Your task to perform on an android device: turn on improve location accuracy Image 0: 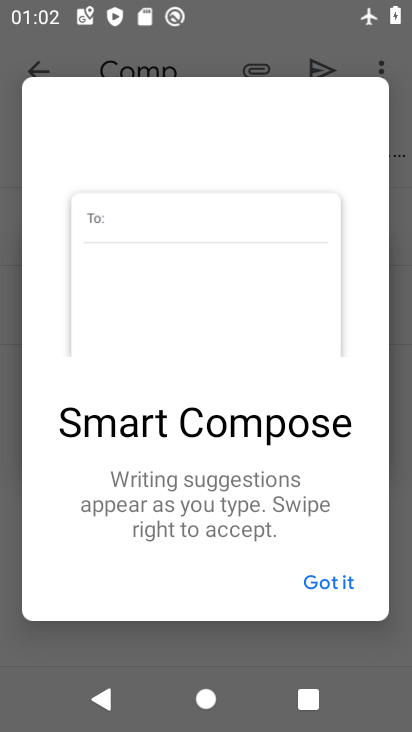
Step 0: press home button
Your task to perform on an android device: turn on improve location accuracy Image 1: 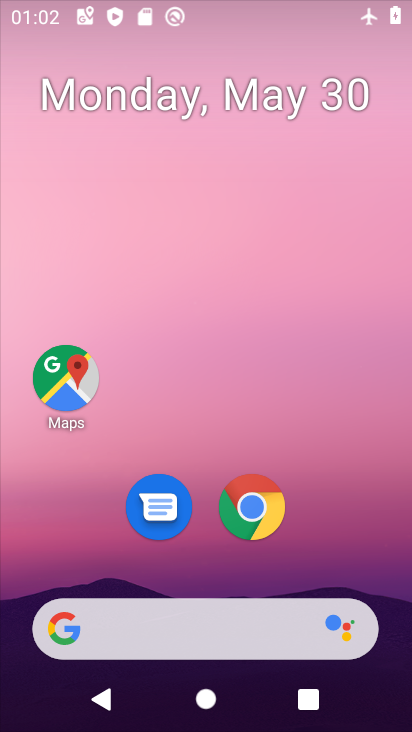
Step 1: drag from (262, 586) to (224, 186)
Your task to perform on an android device: turn on improve location accuracy Image 2: 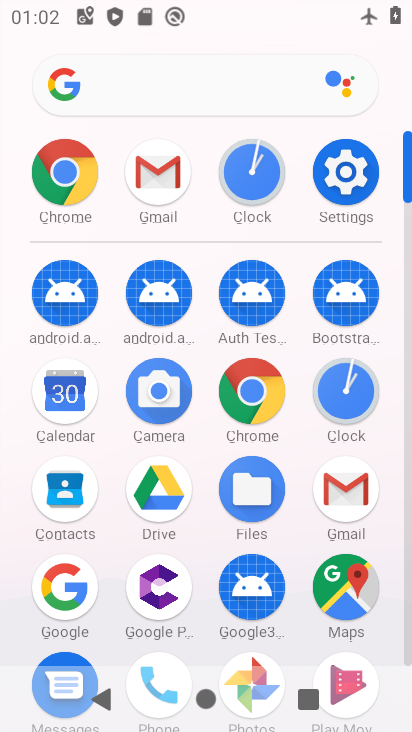
Step 2: click (334, 166)
Your task to perform on an android device: turn on improve location accuracy Image 3: 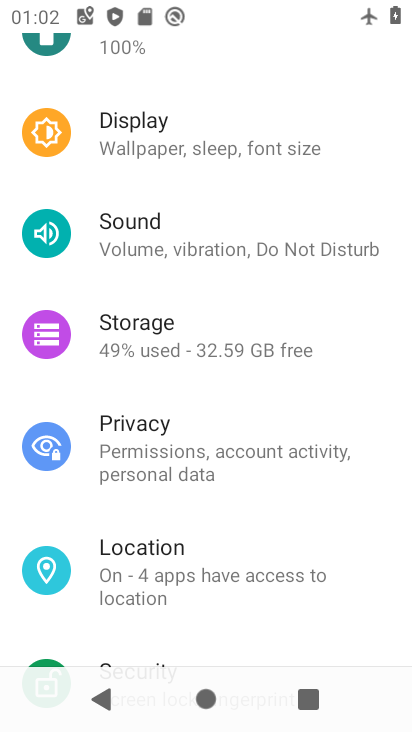
Step 3: drag from (173, 565) to (184, 364)
Your task to perform on an android device: turn on improve location accuracy Image 4: 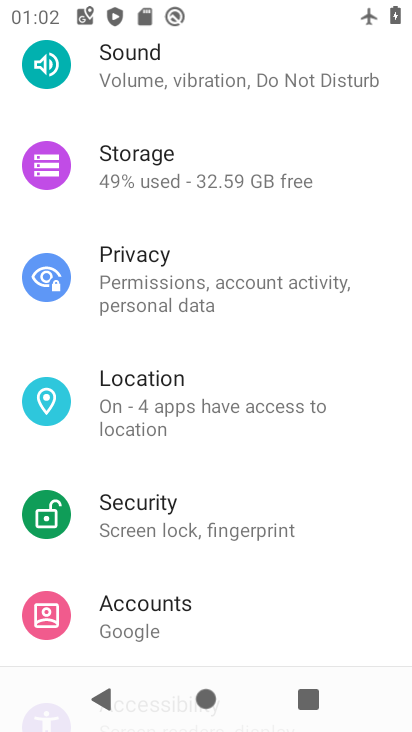
Step 4: click (152, 406)
Your task to perform on an android device: turn on improve location accuracy Image 5: 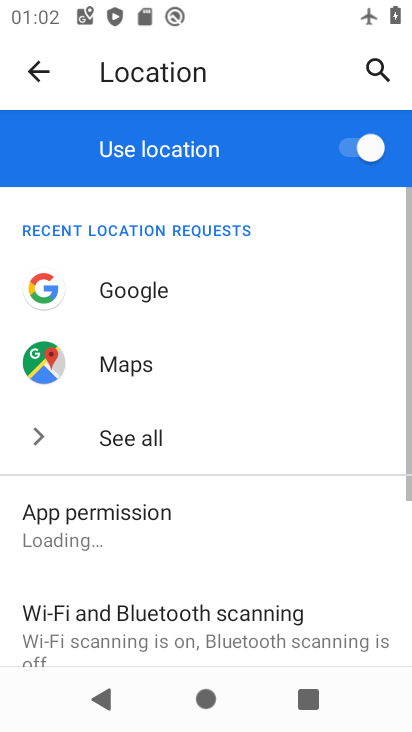
Step 5: drag from (153, 604) to (204, 246)
Your task to perform on an android device: turn on improve location accuracy Image 6: 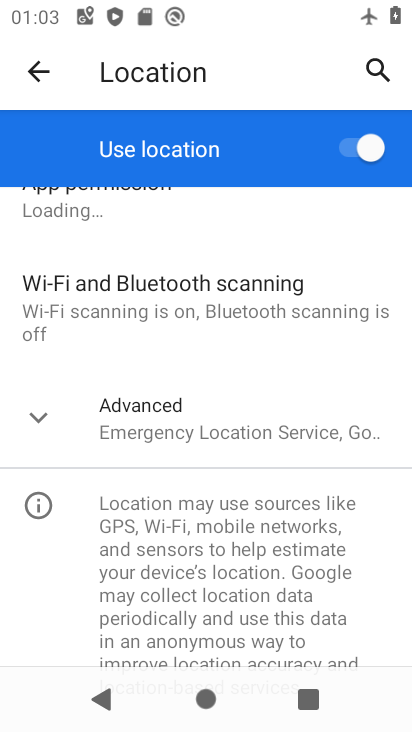
Step 6: click (156, 404)
Your task to perform on an android device: turn on improve location accuracy Image 7: 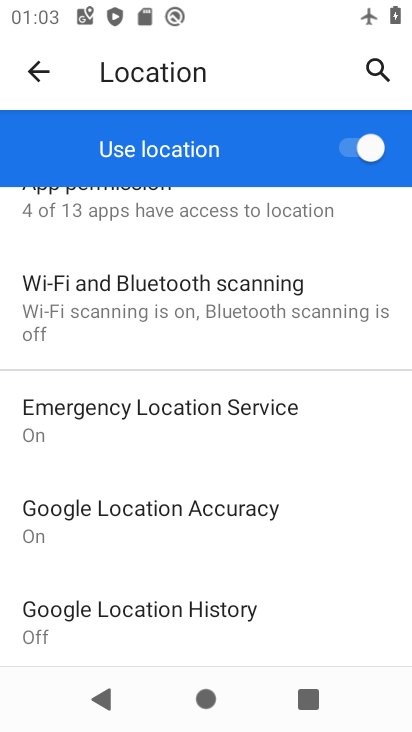
Step 7: click (157, 515)
Your task to perform on an android device: turn on improve location accuracy Image 8: 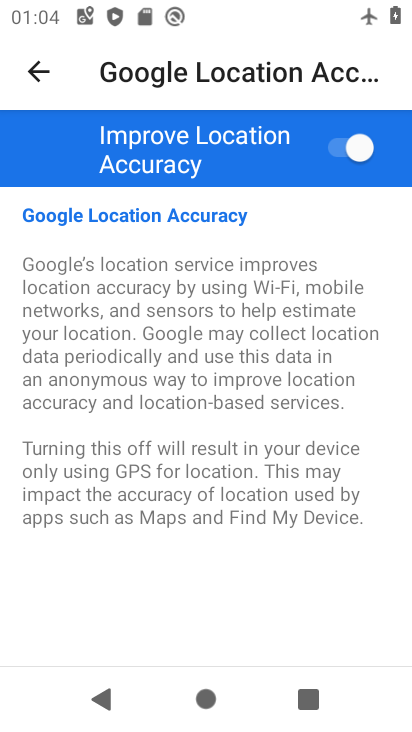
Step 8: task complete